Your task to perform on an android device: open wifi settings Image 0: 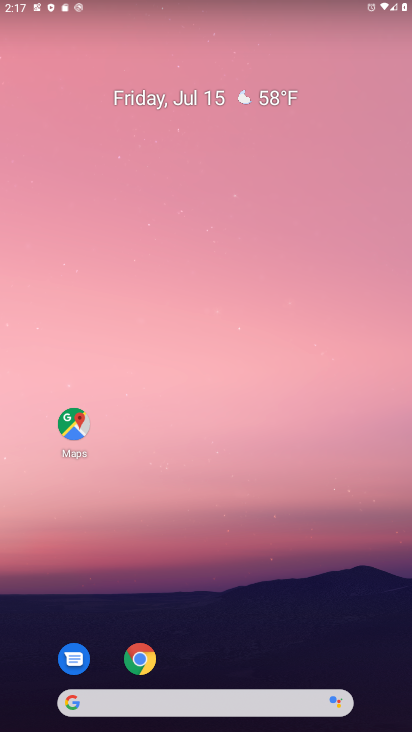
Step 0: drag from (206, 726) to (217, 153)
Your task to perform on an android device: open wifi settings Image 1: 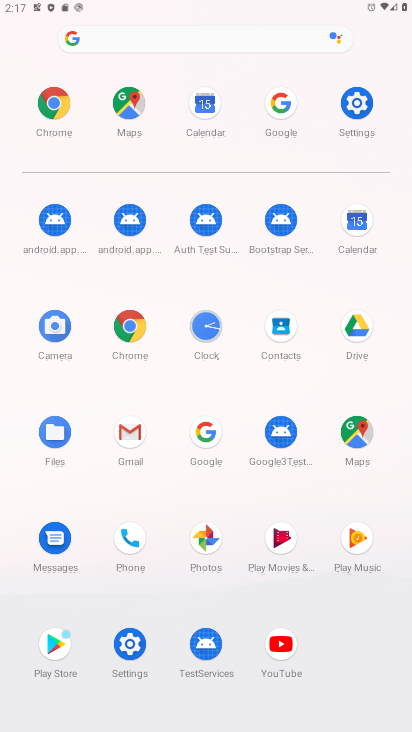
Step 1: click (358, 104)
Your task to perform on an android device: open wifi settings Image 2: 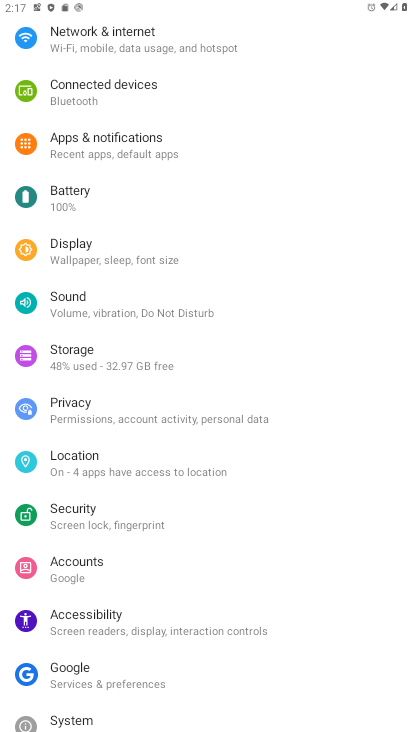
Step 2: drag from (114, 71) to (128, 298)
Your task to perform on an android device: open wifi settings Image 3: 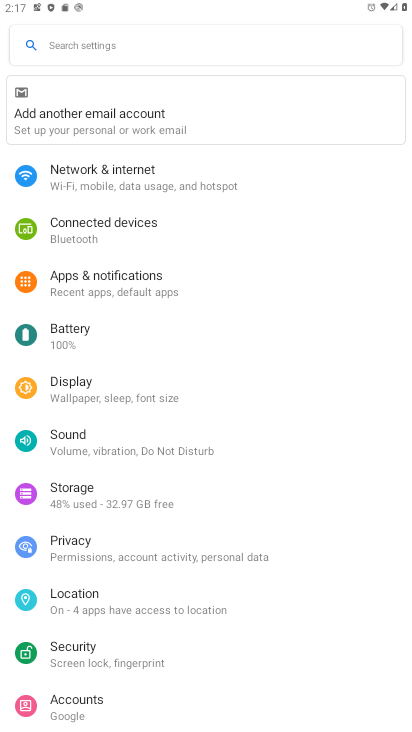
Step 3: click (97, 172)
Your task to perform on an android device: open wifi settings Image 4: 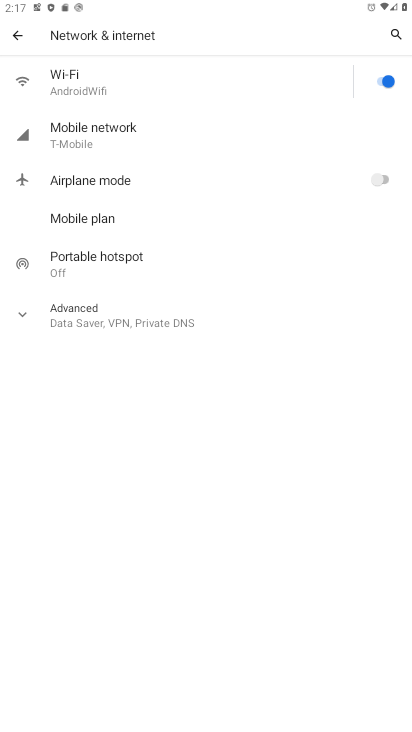
Step 4: click (84, 80)
Your task to perform on an android device: open wifi settings Image 5: 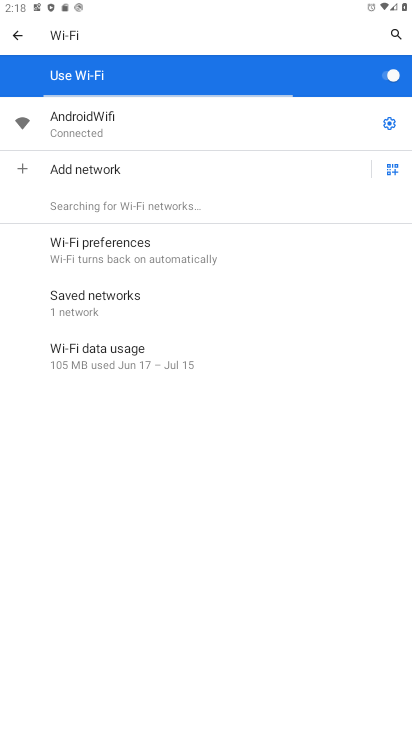
Step 5: task complete